Your task to perform on an android device: Check the weather Image 0: 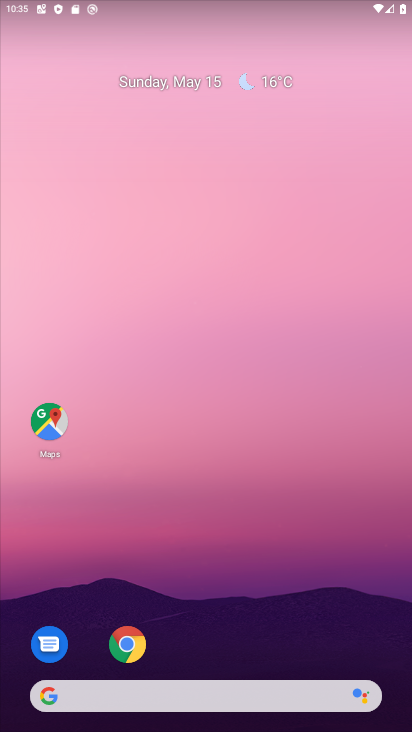
Step 0: click (271, 79)
Your task to perform on an android device: Check the weather Image 1: 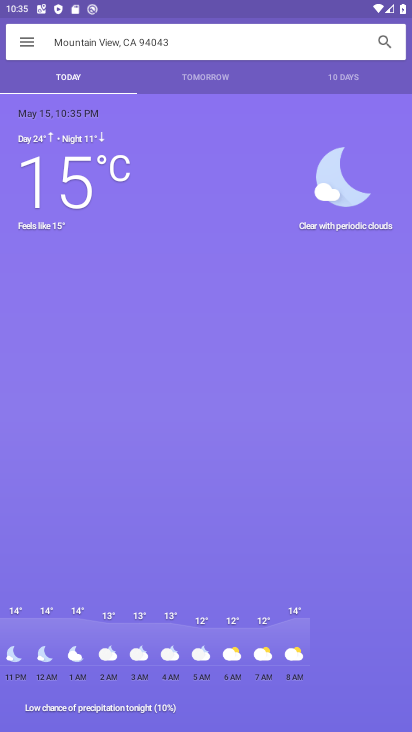
Step 1: task complete